Your task to perform on an android device: turn on sleep mode Image 0: 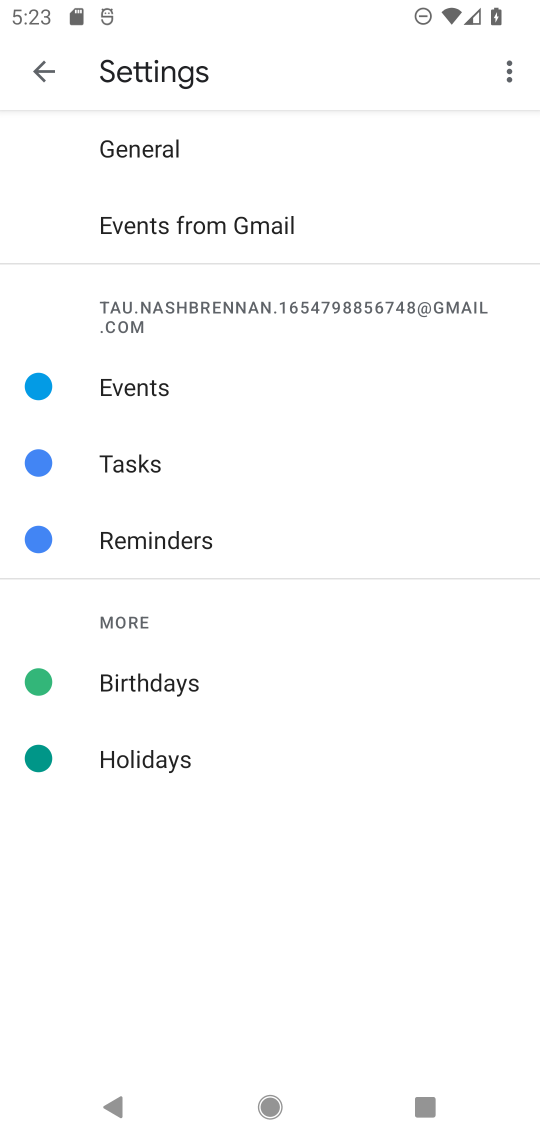
Step 0: press home button
Your task to perform on an android device: turn on sleep mode Image 1: 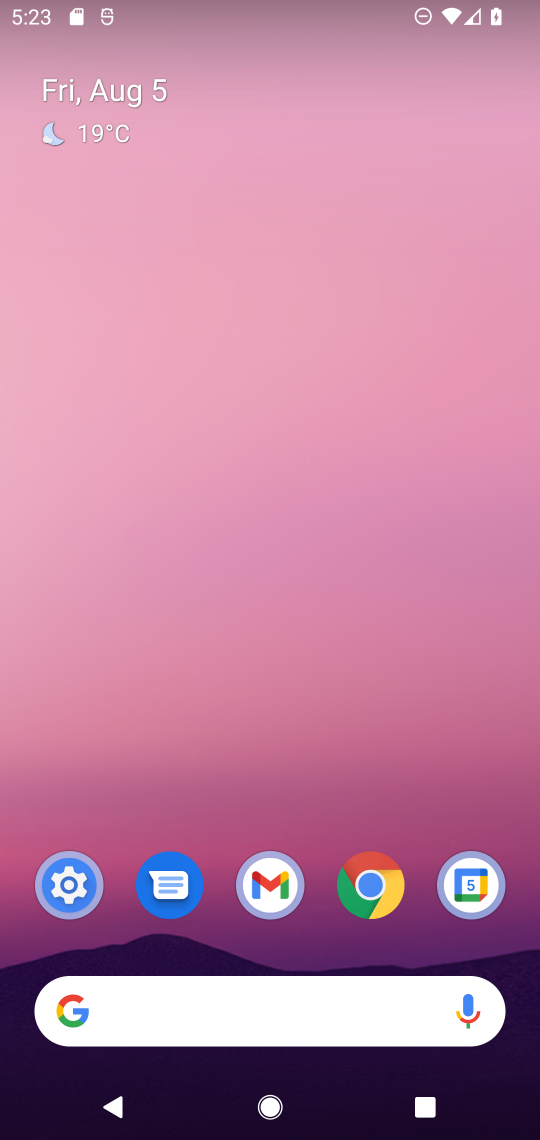
Step 1: drag from (319, 960) to (319, 162)
Your task to perform on an android device: turn on sleep mode Image 2: 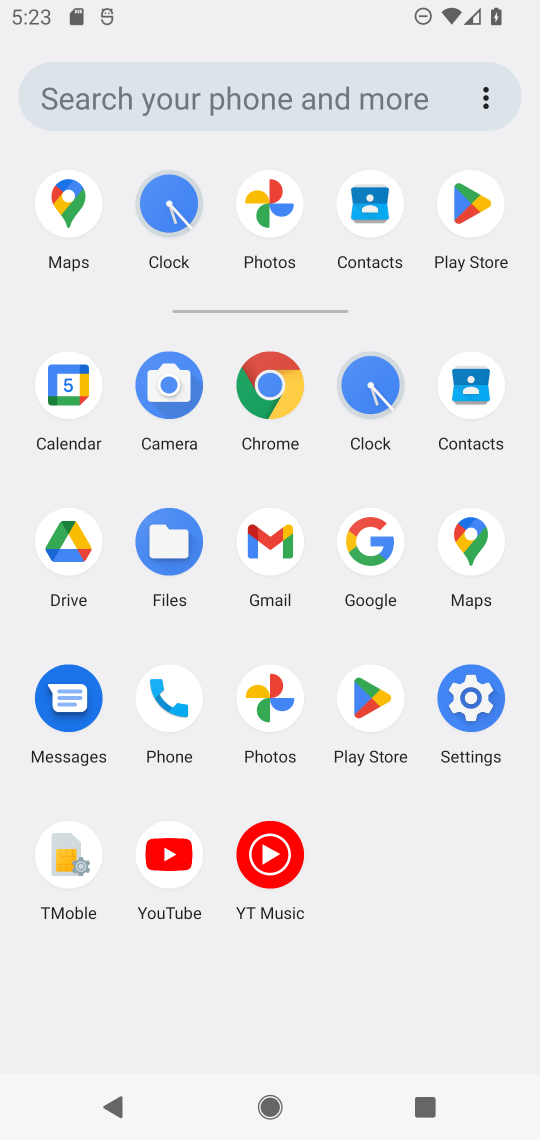
Step 2: click (469, 704)
Your task to perform on an android device: turn on sleep mode Image 3: 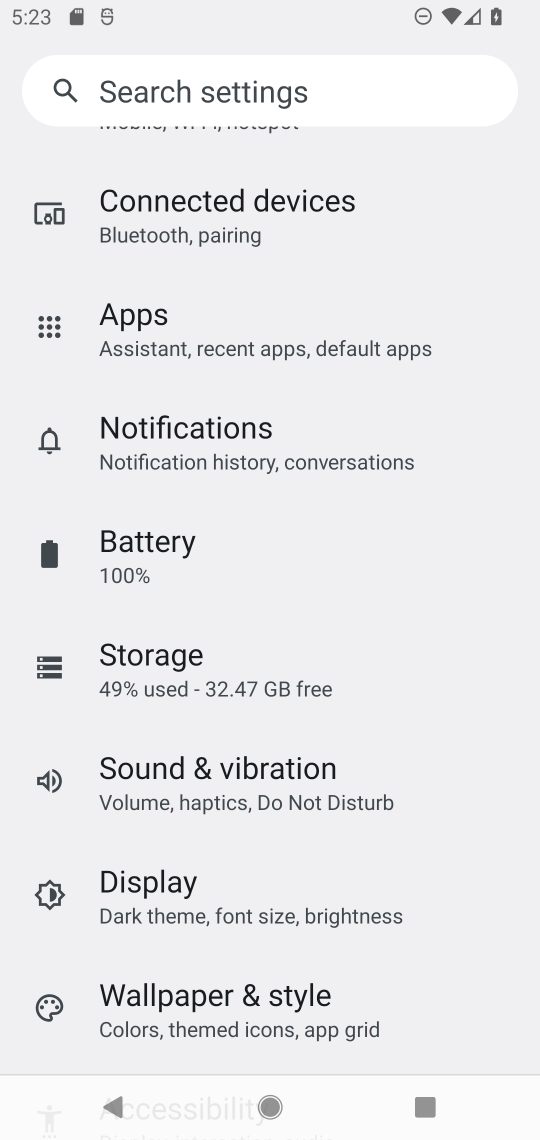
Step 3: task complete